Your task to perform on an android device: Open sound settings Image 0: 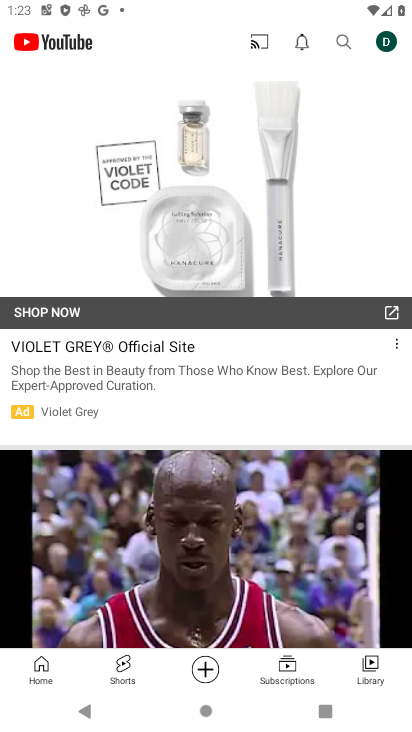
Step 0: press home button
Your task to perform on an android device: Open sound settings Image 1: 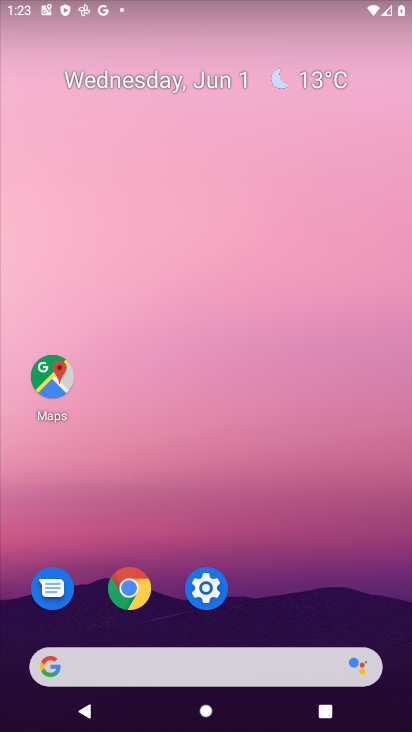
Step 1: click (186, 584)
Your task to perform on an android device: Open sound settings Image 2: 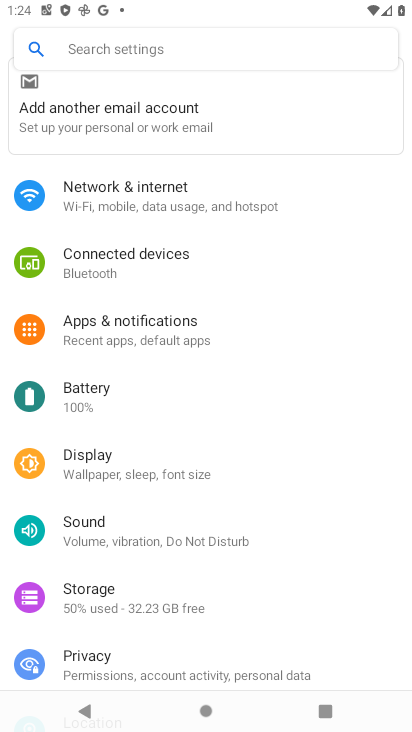
Step 2: click (130, 48)
Your task to perform on an android device: Open sound settings Image 3: 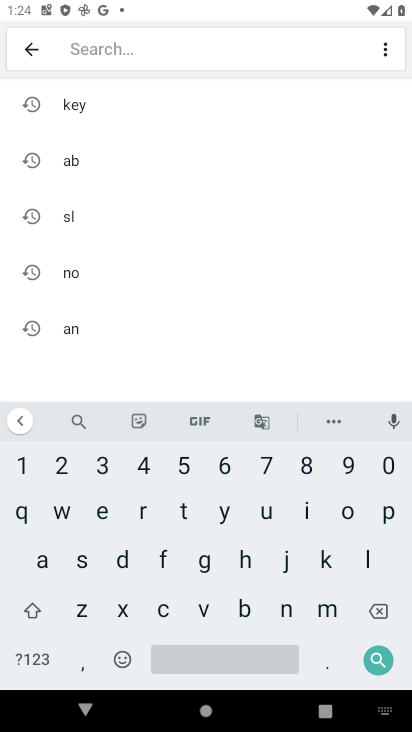
Step 3: click (81, 562)
Your task to perform on an android device: Open sound settings Image 4: 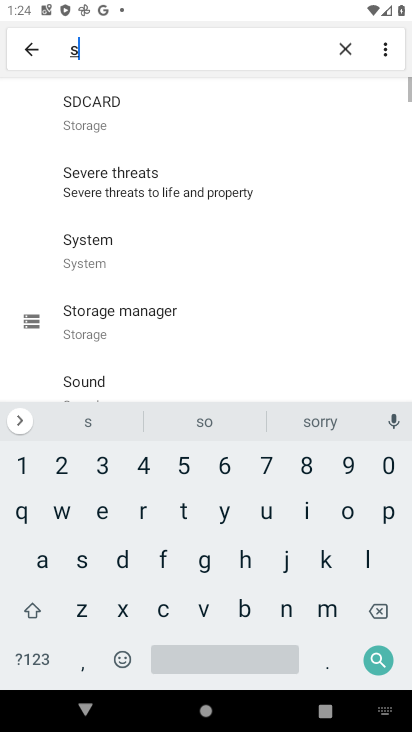
Step 4: click (350, 505)
Your task to perform on an android device: Open sound settings Image 5: 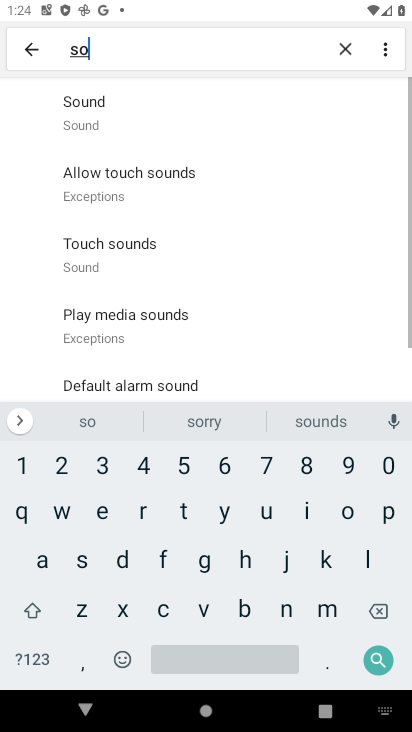
Step 5: click (261, 510)
Your task to perform on an android device: Open sound settings Image 6: 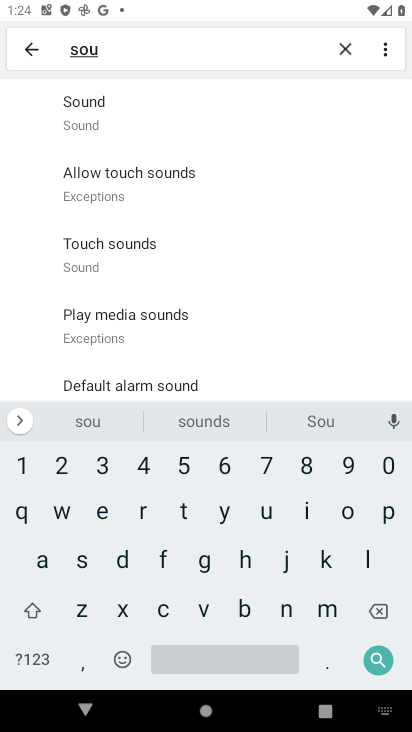
Step 6: click (117, 113)
Your task to perform on an android device: Open sound settings Image 7: 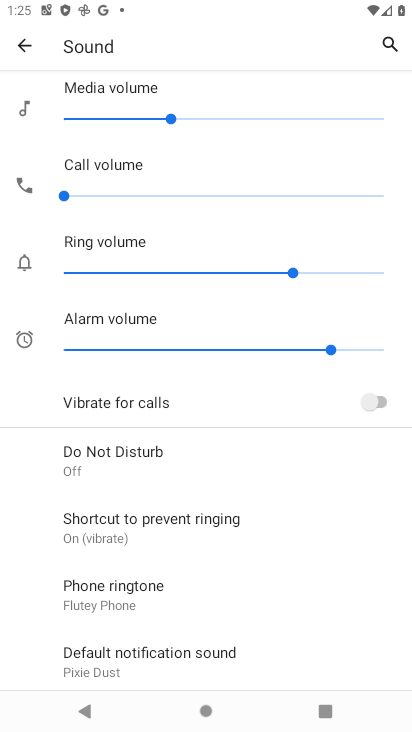
Step 7: task complete